Your task to perform on an android device: toggle pop-ups in chrome Image 0: 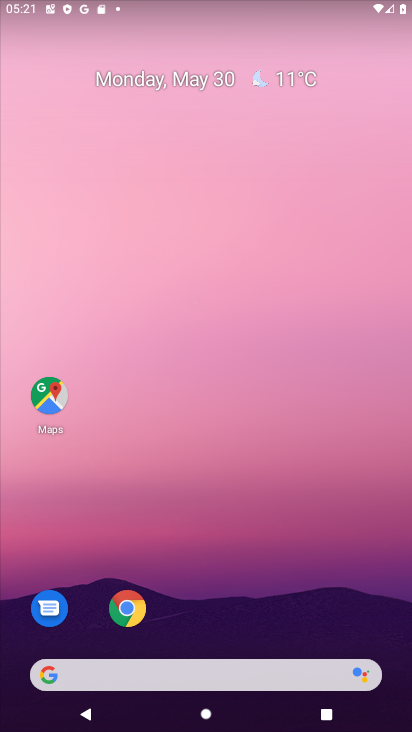
Step 0: click (133, 614)
Your task to perform on an android device: toggle pop-ups in chrome Image 1: 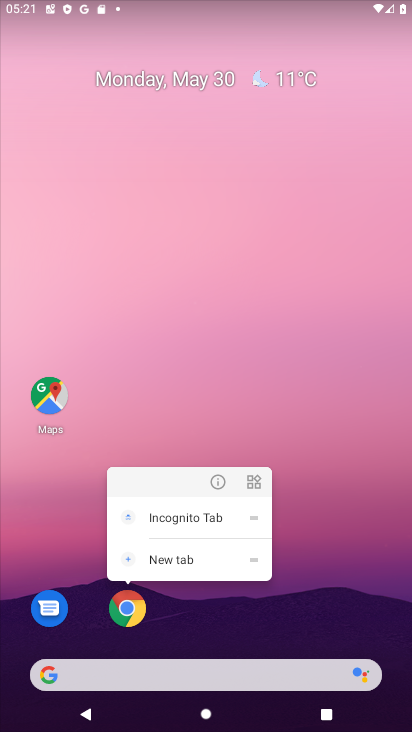
Step 1: click (127, 605)
Your task to perform on an android device: toggle pop-ups in chrome Image 2: 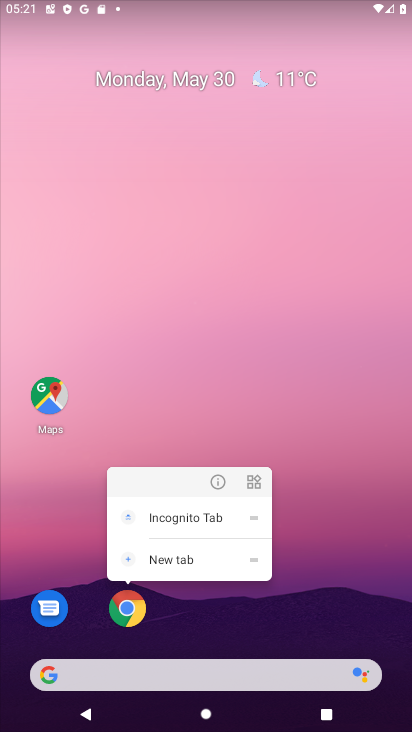
Step 2: click (129, 616)
Your task to perform on an android device: toggle pop-ups in chrome Image 3: 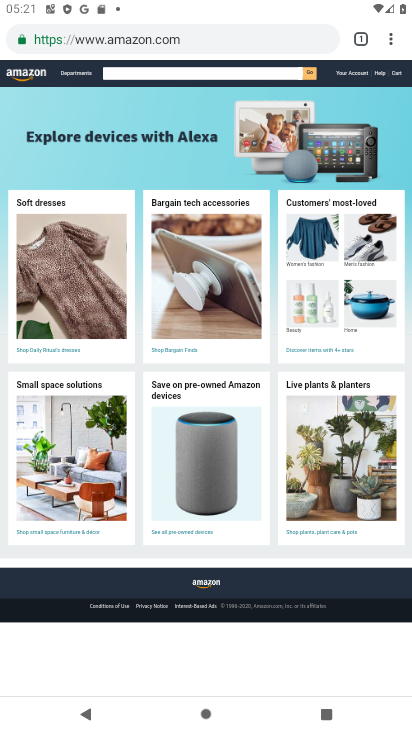
Step 3: click (393, 42)
Your task to perform on an android device: toggle pop-ups in chrome Image 4: 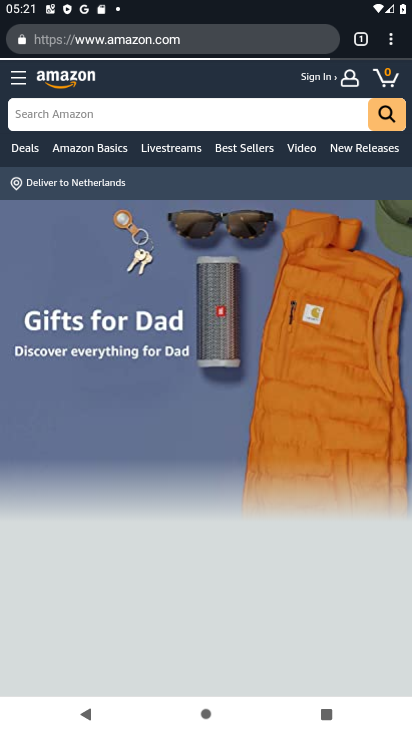
Step 4: click (386, 39)
Your task to perform on an android device: toggle pop-ups in chrome Image 5: 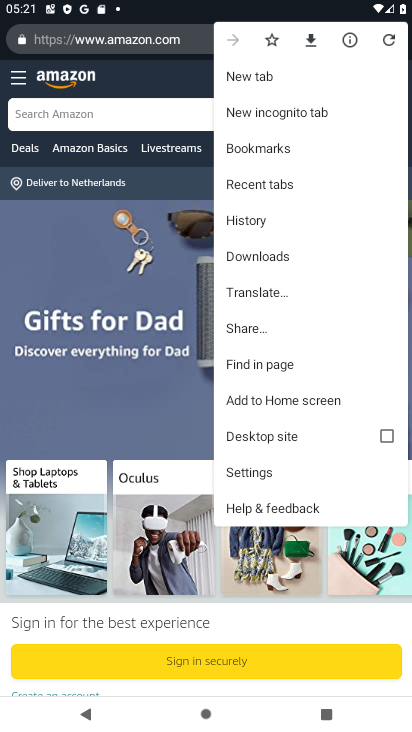
Step 5: click (240, 479)
Your task to perform on an android device: toggle pop-ups in chrome Image 6: 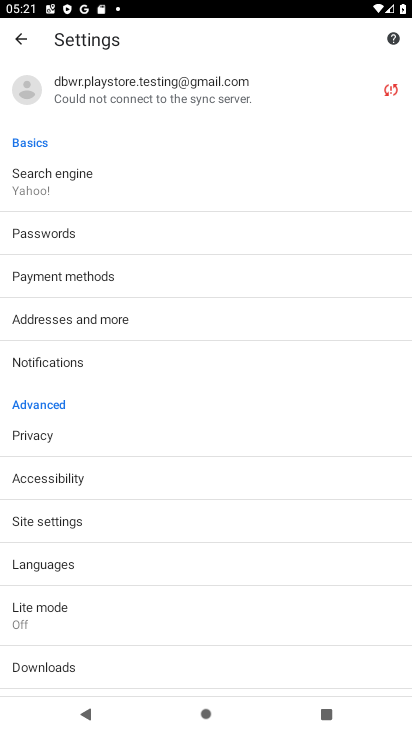
Step 6: click (54, 528)
Your task to perform on an android device: toggle pop-ups in chrome Image 7: 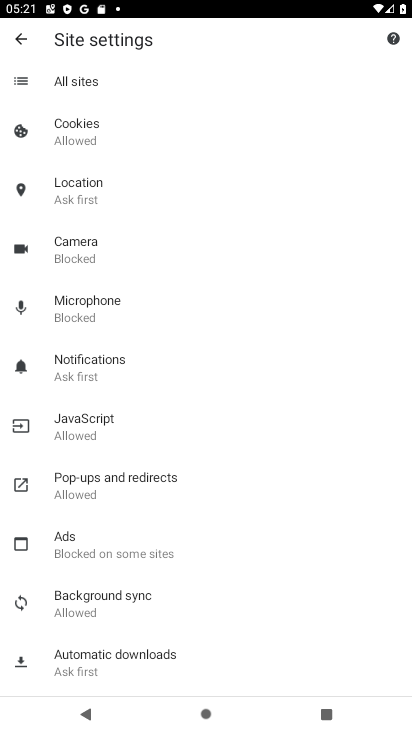
Step 7: click (95, 477)
Your task to perform on an android device: toggle pop-ups in chrome Image 8: 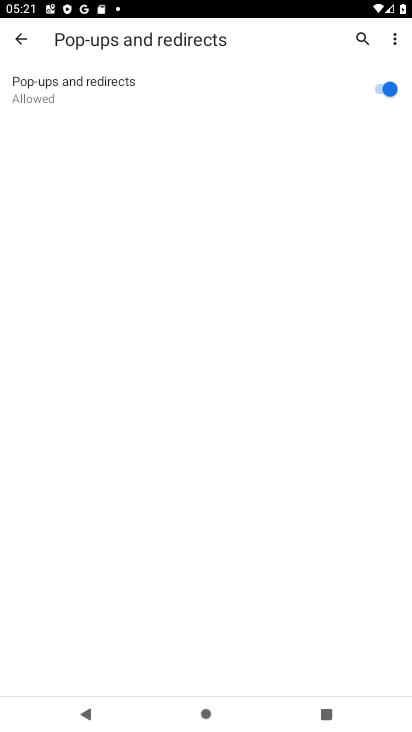
Step 8: click (383, 89)
Your task to perform on an android device: toggle pop-ups in chrome Image 9: 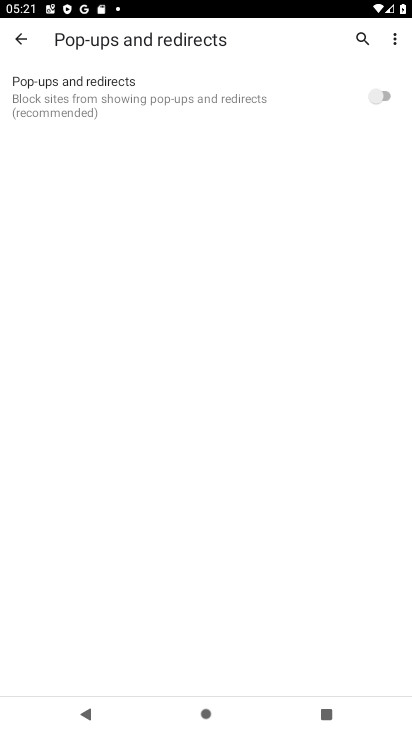
Step 9: task complete